Your task to perform on an android device: Open Chrome and go to settings Image 0: 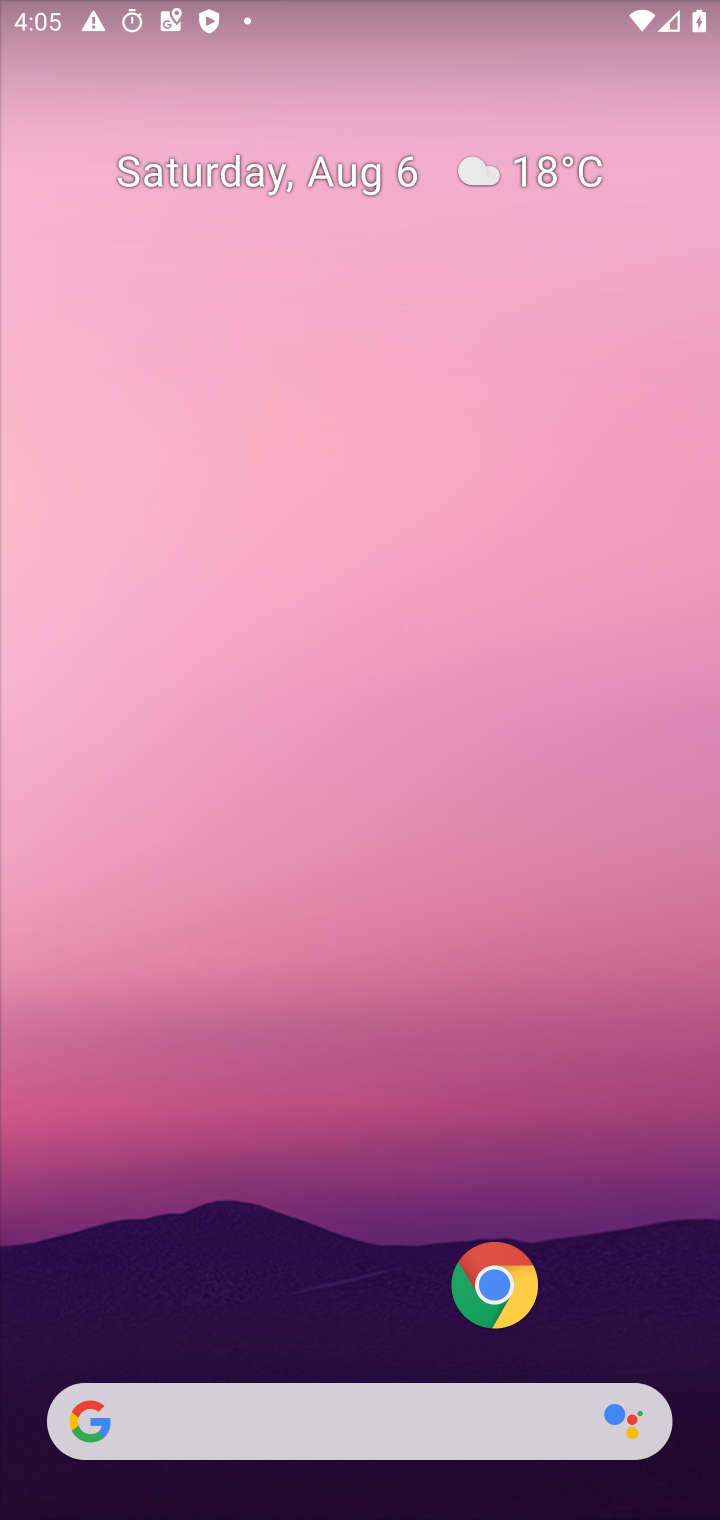
Step 0: click (483, 526)
Your task to perform on an android device: Open Chrome and go to settings Image 1: 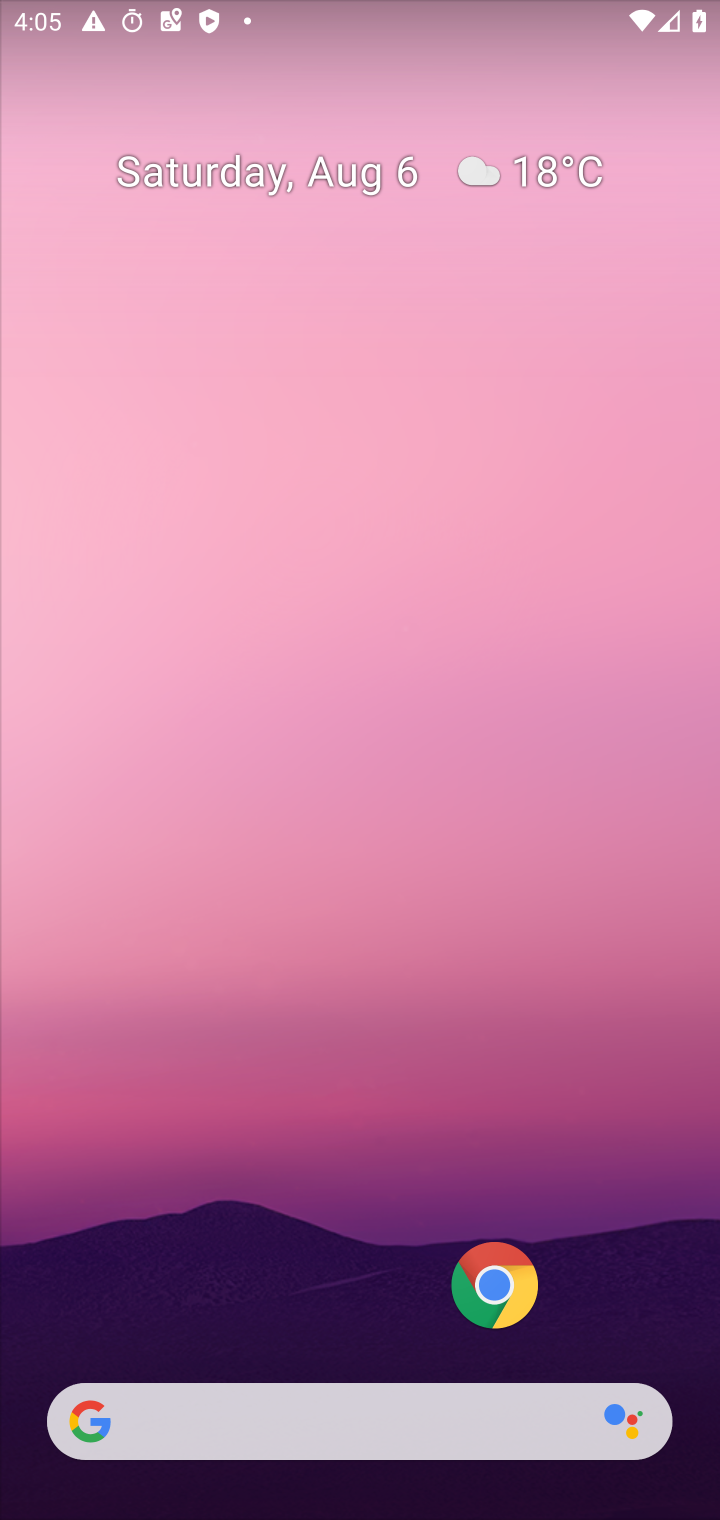
Step 1: press home button
Your task to perform on an android device: Open Chrome and go to settings Image 2: 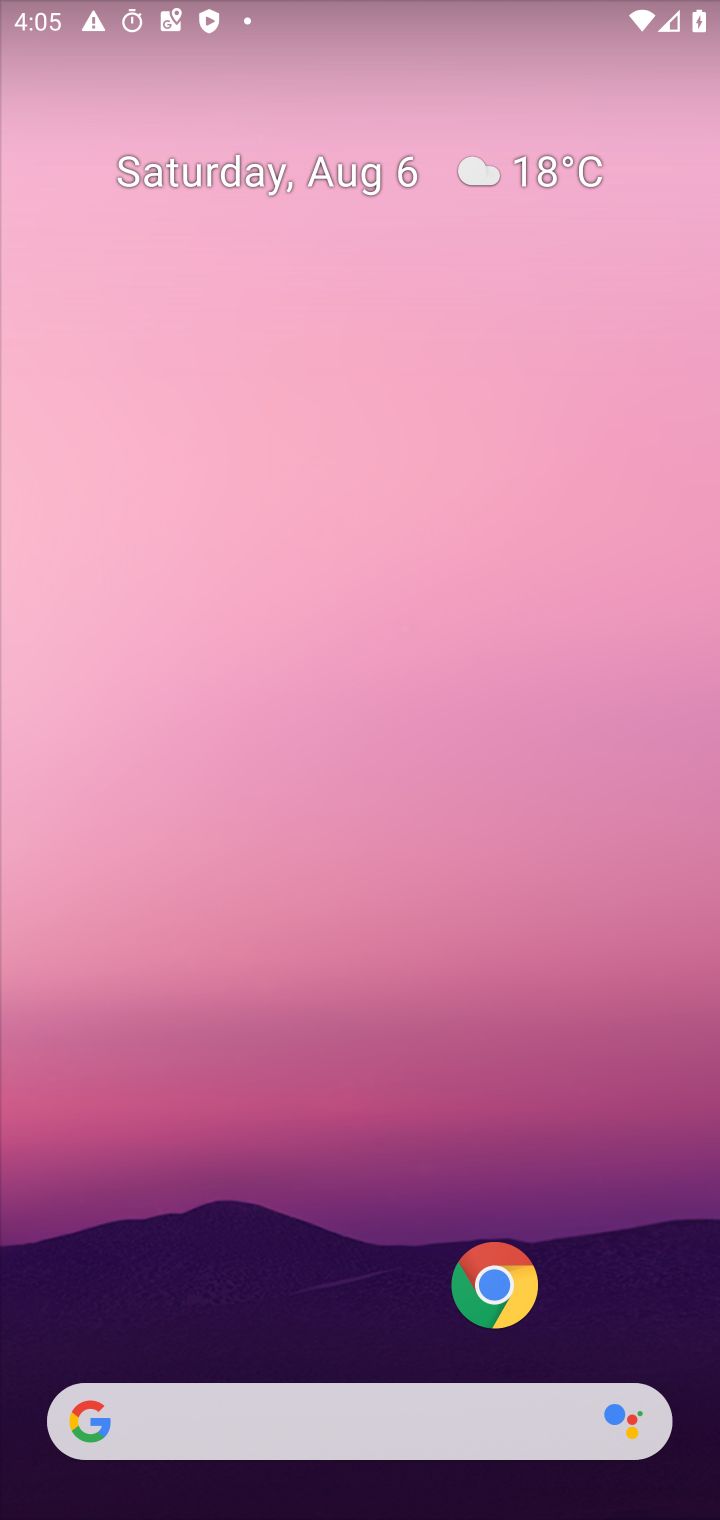
Step 2: drag from (340, 1319) to (344, 387)
Your task to perform on an android device: Open Chrome and go to settings Image 3: 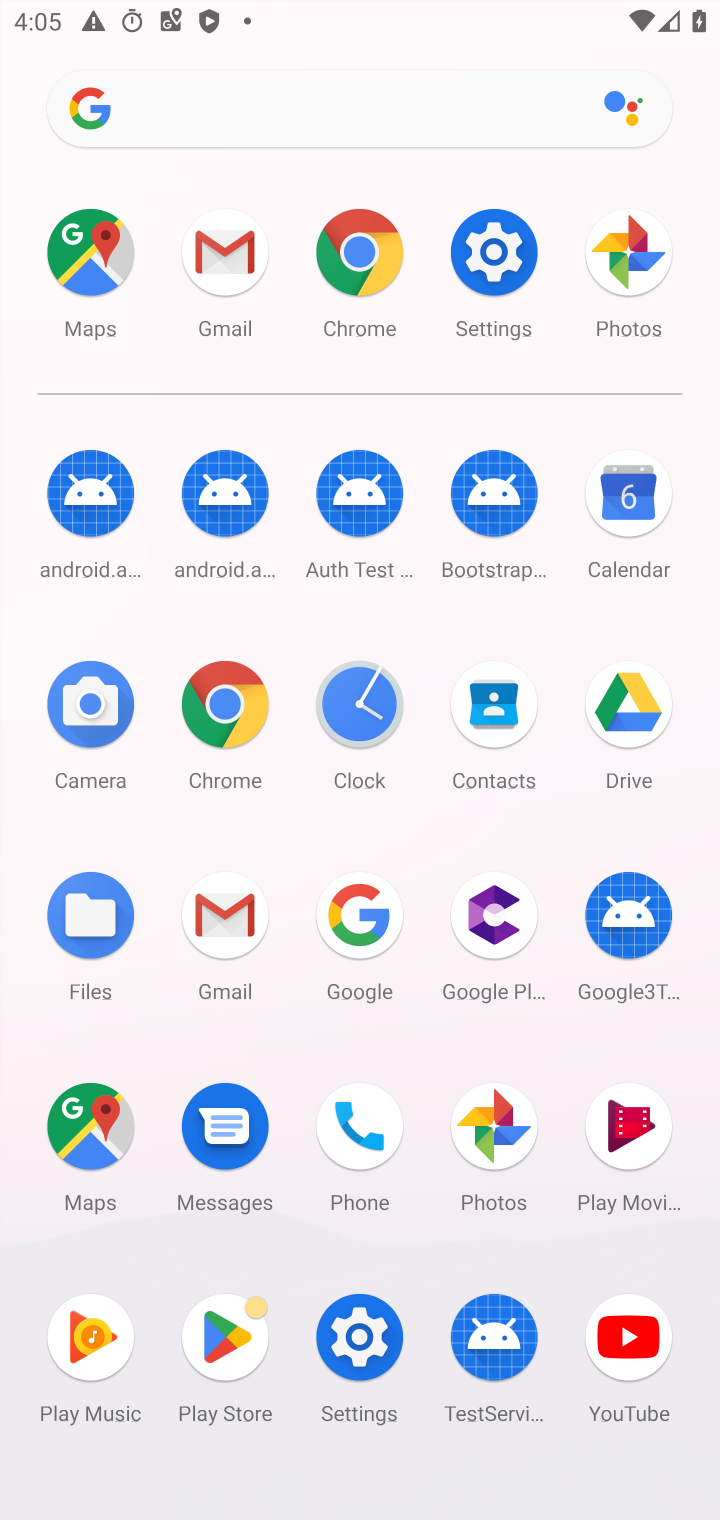
Step 3: click (364, 239)
Your task to perform on an android device: Open Chrome and go to settings Image 4: 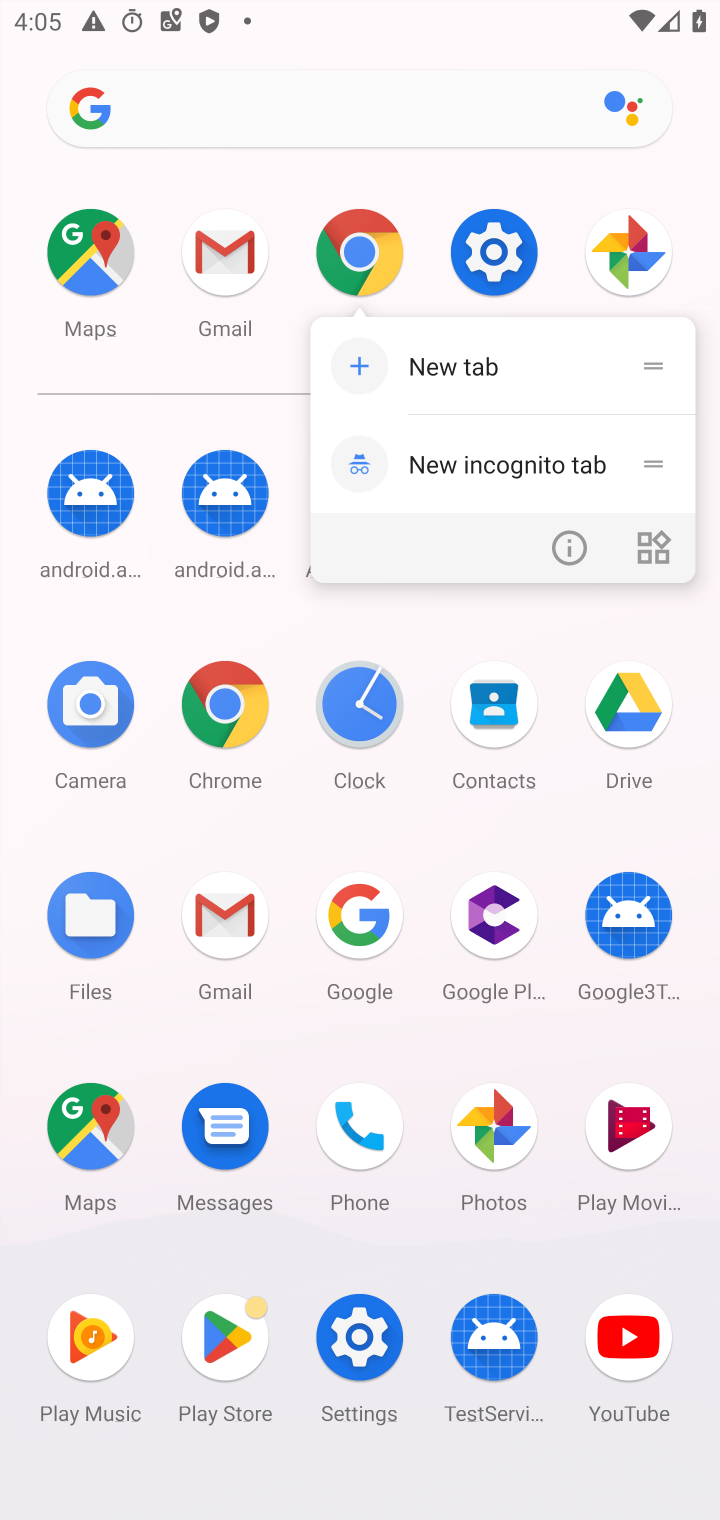
Step 4: click (224, 700)
Your task to perform on an android device: Open Chrome and go to settings Image 5: 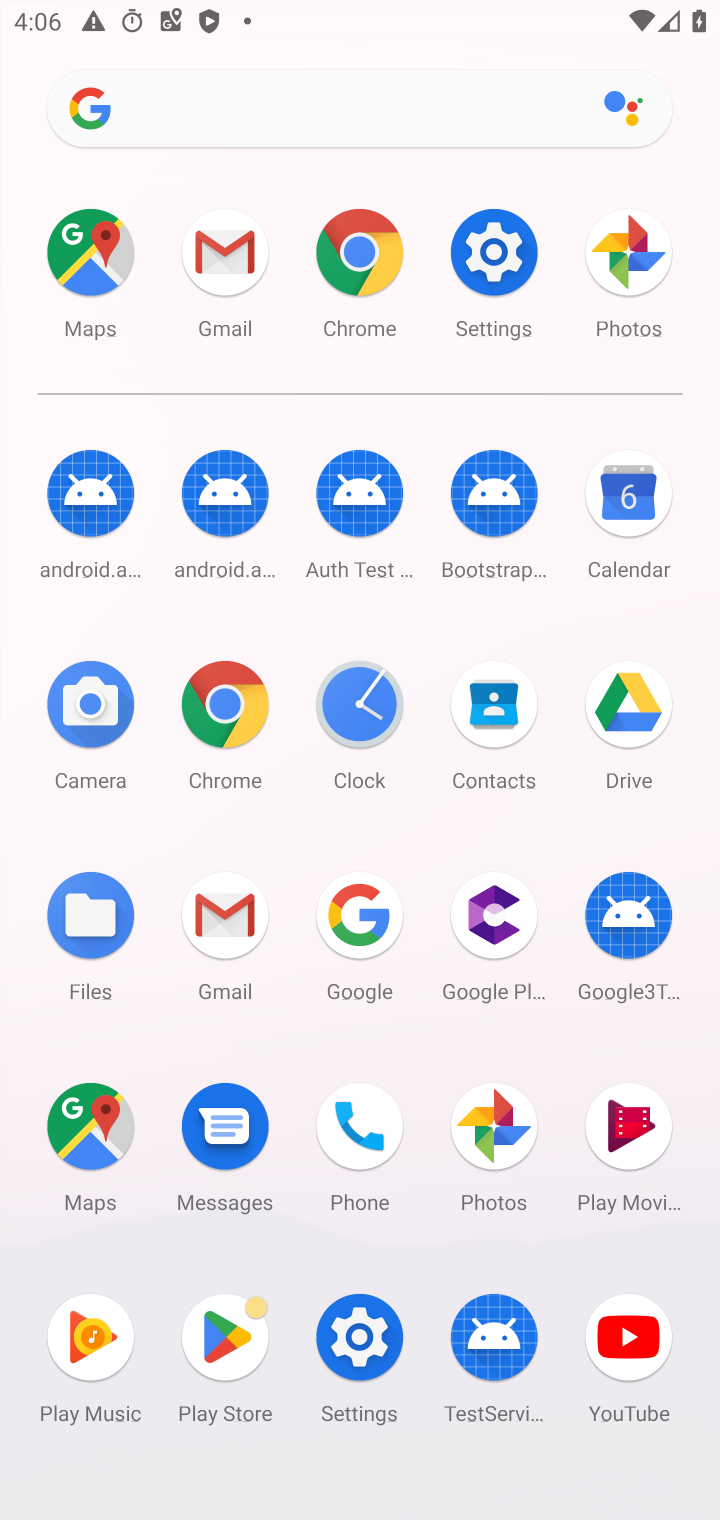
Step 5: click (345, 250)
Your task to perform on an android device: Open Chrome and go to settings Image 6: 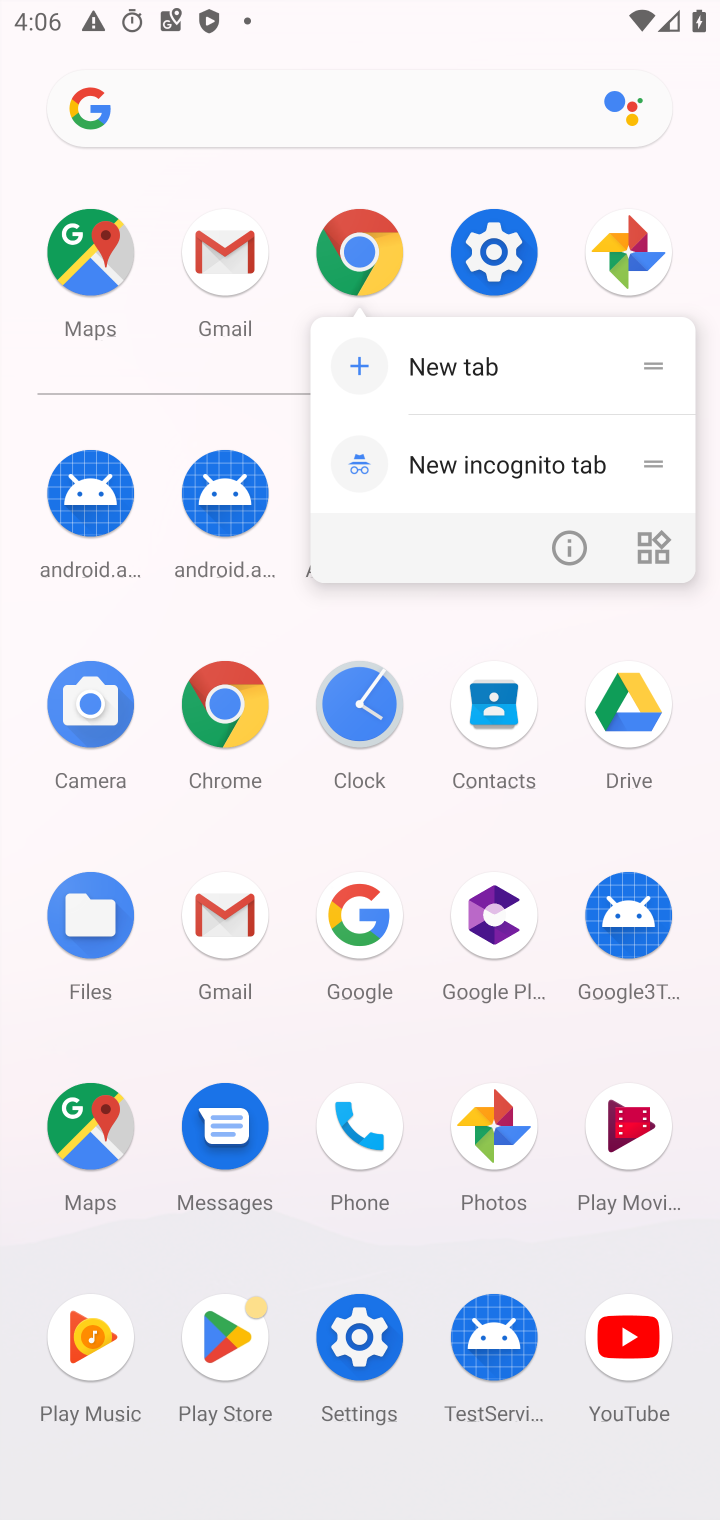
Step 6: click (363, 259)
Your task to perform on an android device: Open Chrome and go to settings Image 7: 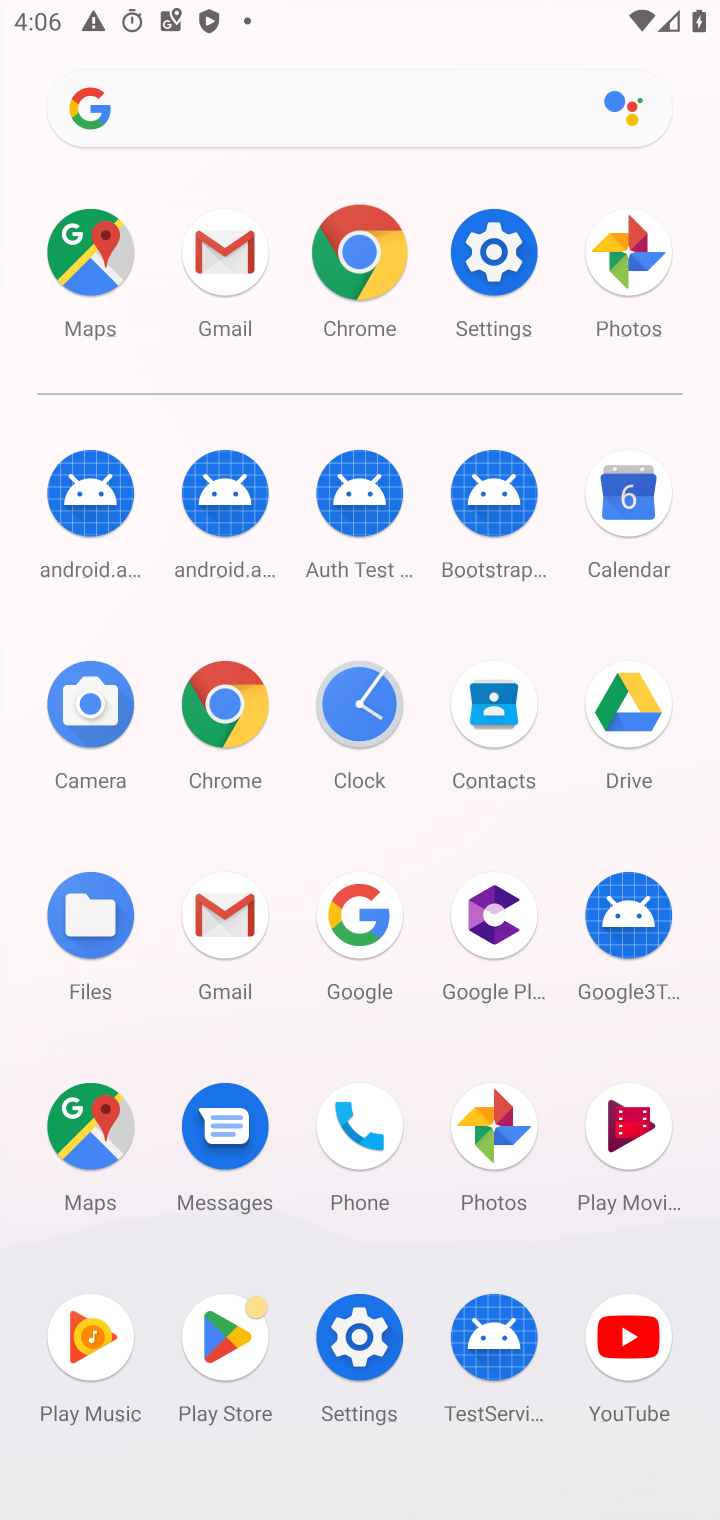
Step 7: click (361, 252)
Your task to perform on an android device: Open Chrome and go to settings Image 8: 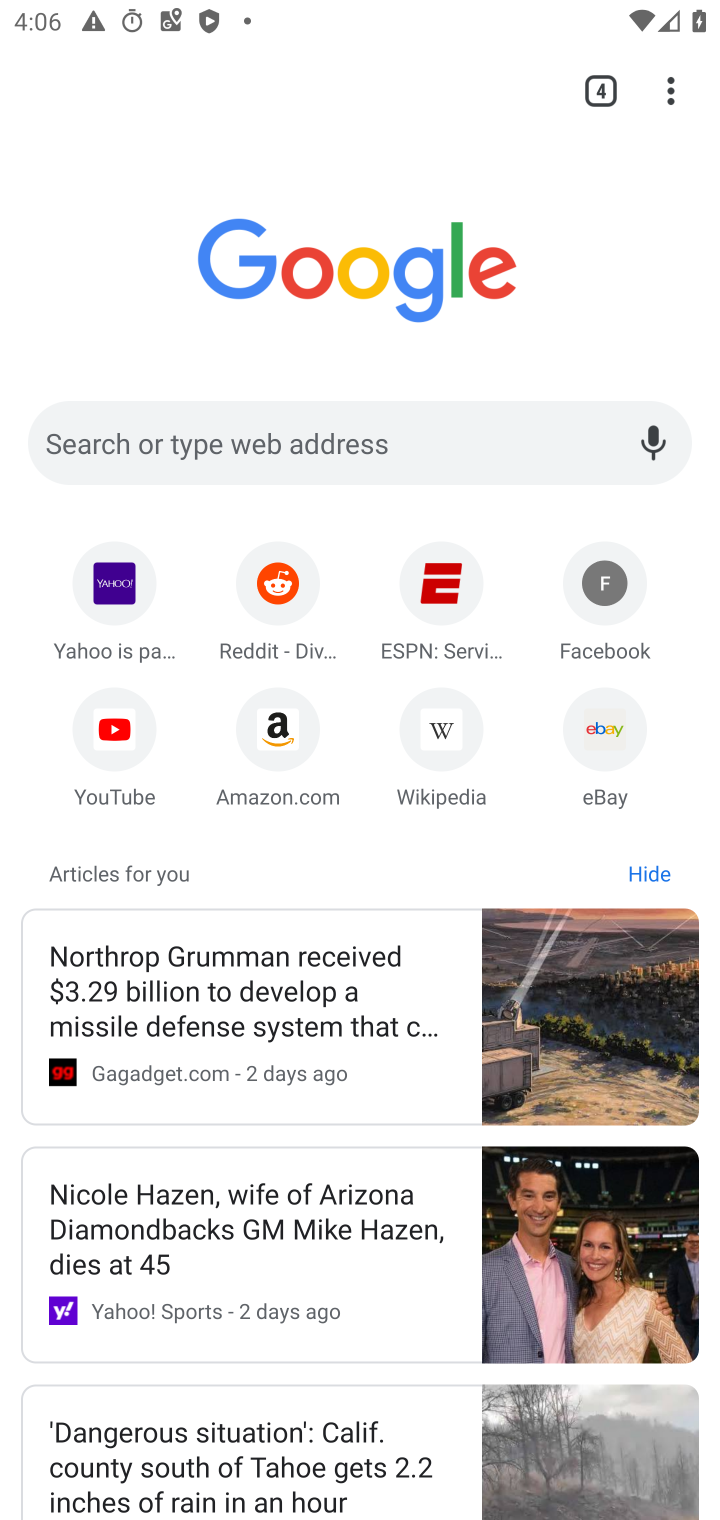
Step 8: click (664, 101)
Your task to perform on an android device: Open Chrome and go to settings Image 9: 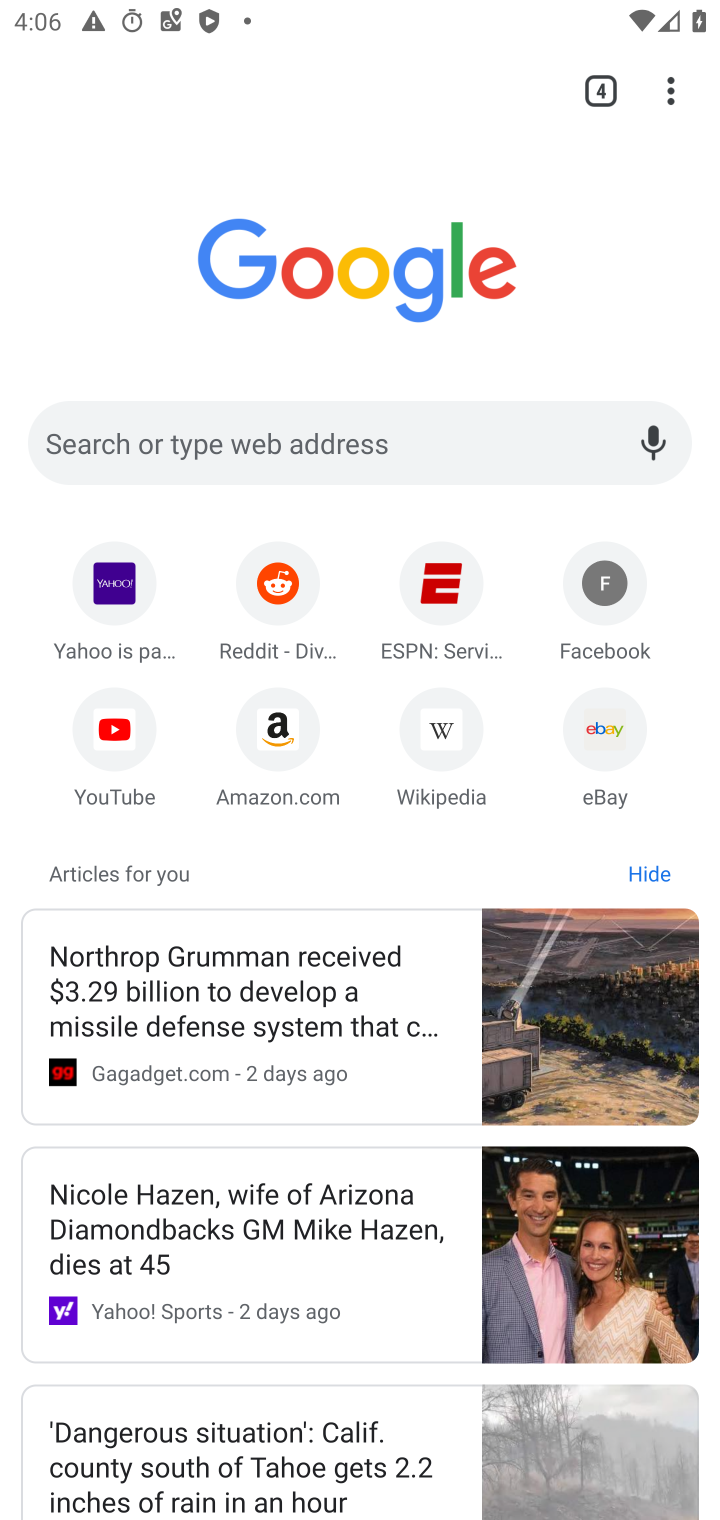
Step 9: click (676, 86)
Your task to perform on an android device: Open Chrome and go to settings Image 10: 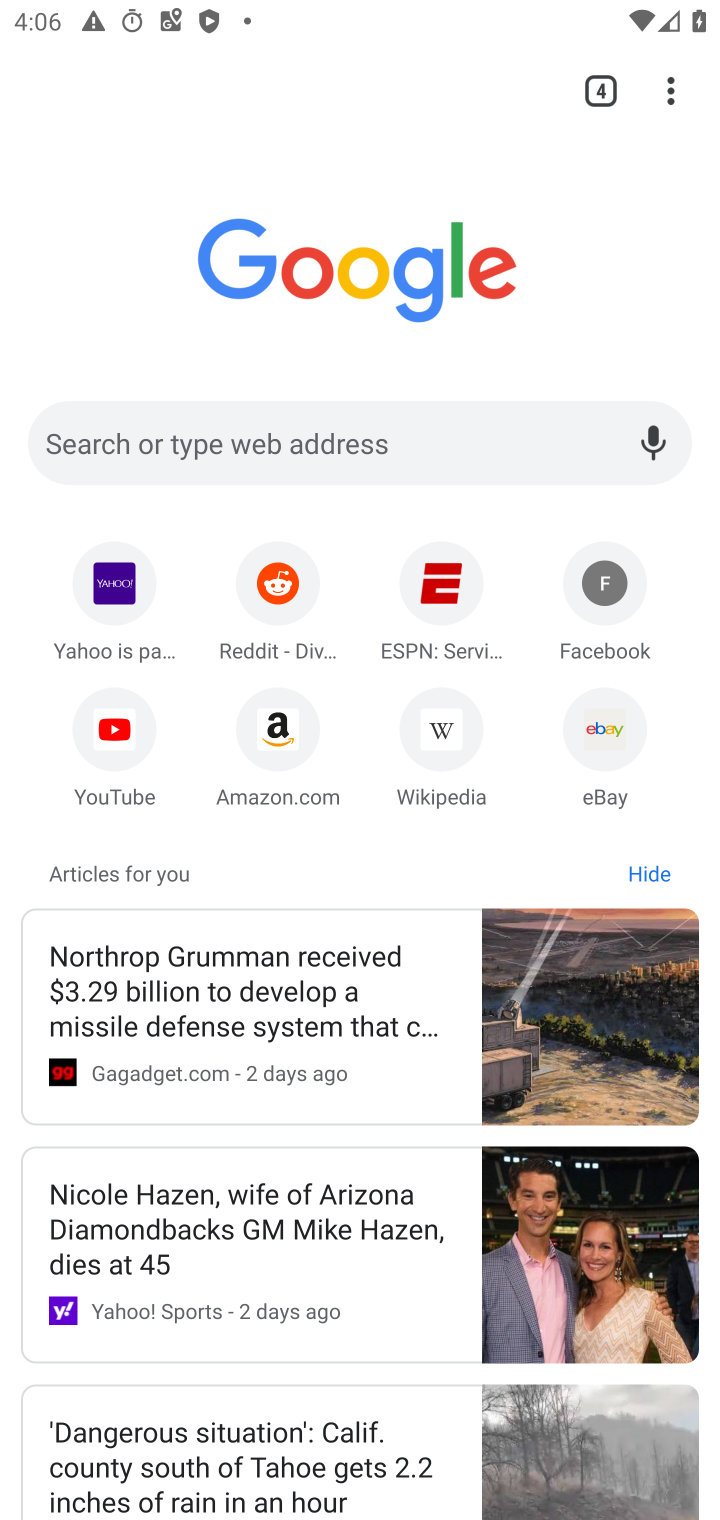
Step 10: click (670, 83)
Your task to perform on an android device: Open Chrome and go to settings Image 11: 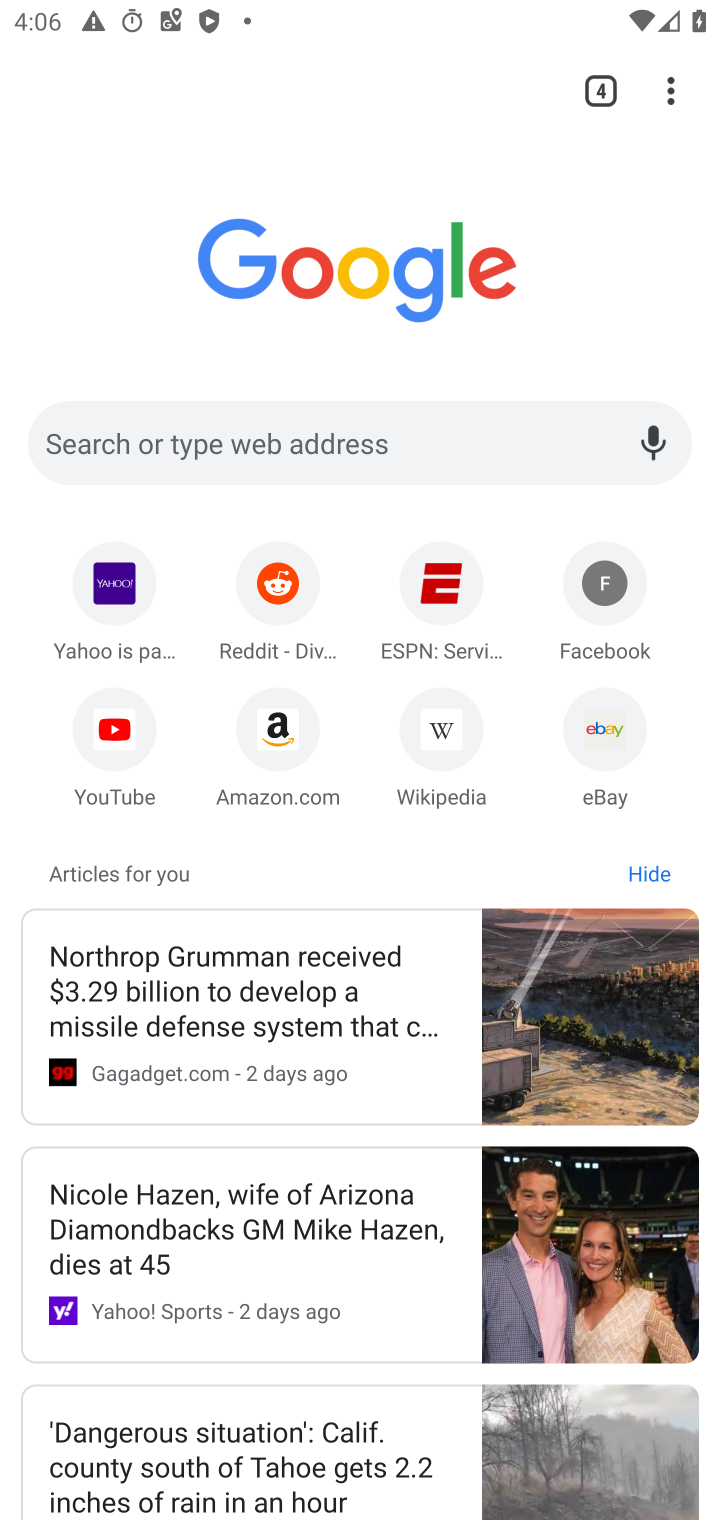
Step 11: click (677, 88)
Your task to perform on an android device: Open Chrome and go to settings Image 12: 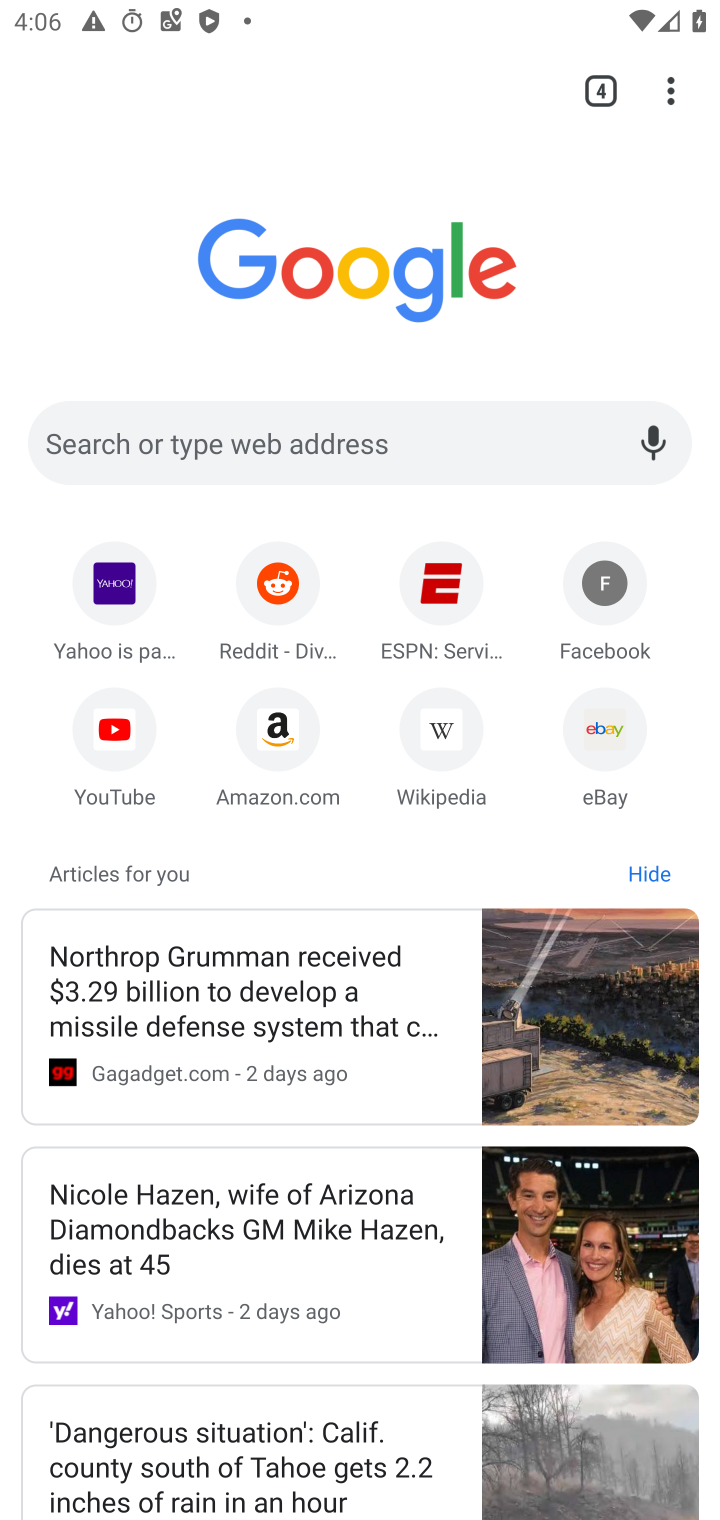
Step 12: click (669, 82)
Your task to perform on an android device: Open Chrome and go to settings Image 13: 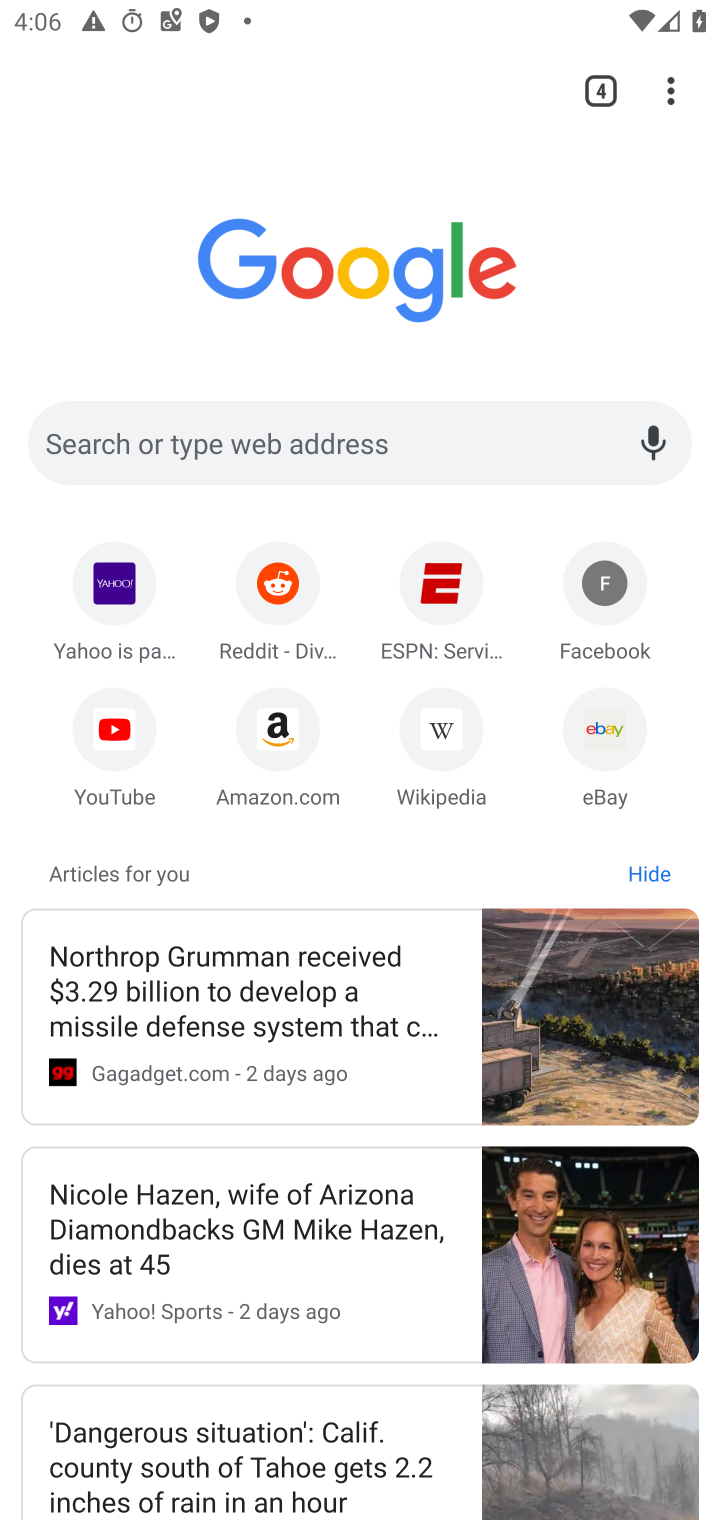
Step 13: click (666, 102)
Your task to perform on an android device: Open Chrome and go to settings Image 14: 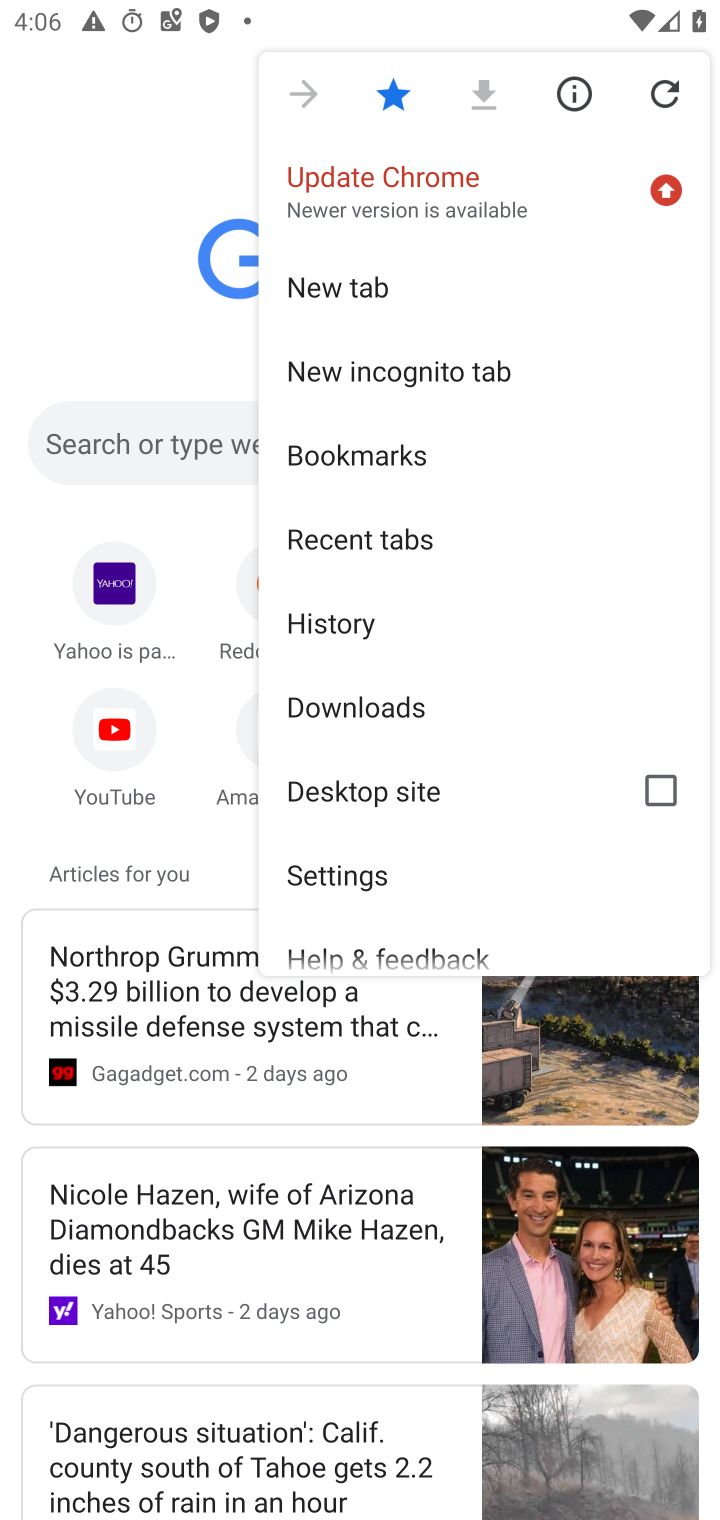
Step 14: click (407, 866)
Your task to perform on an android device: Open Chrome and go to settings Image 15: 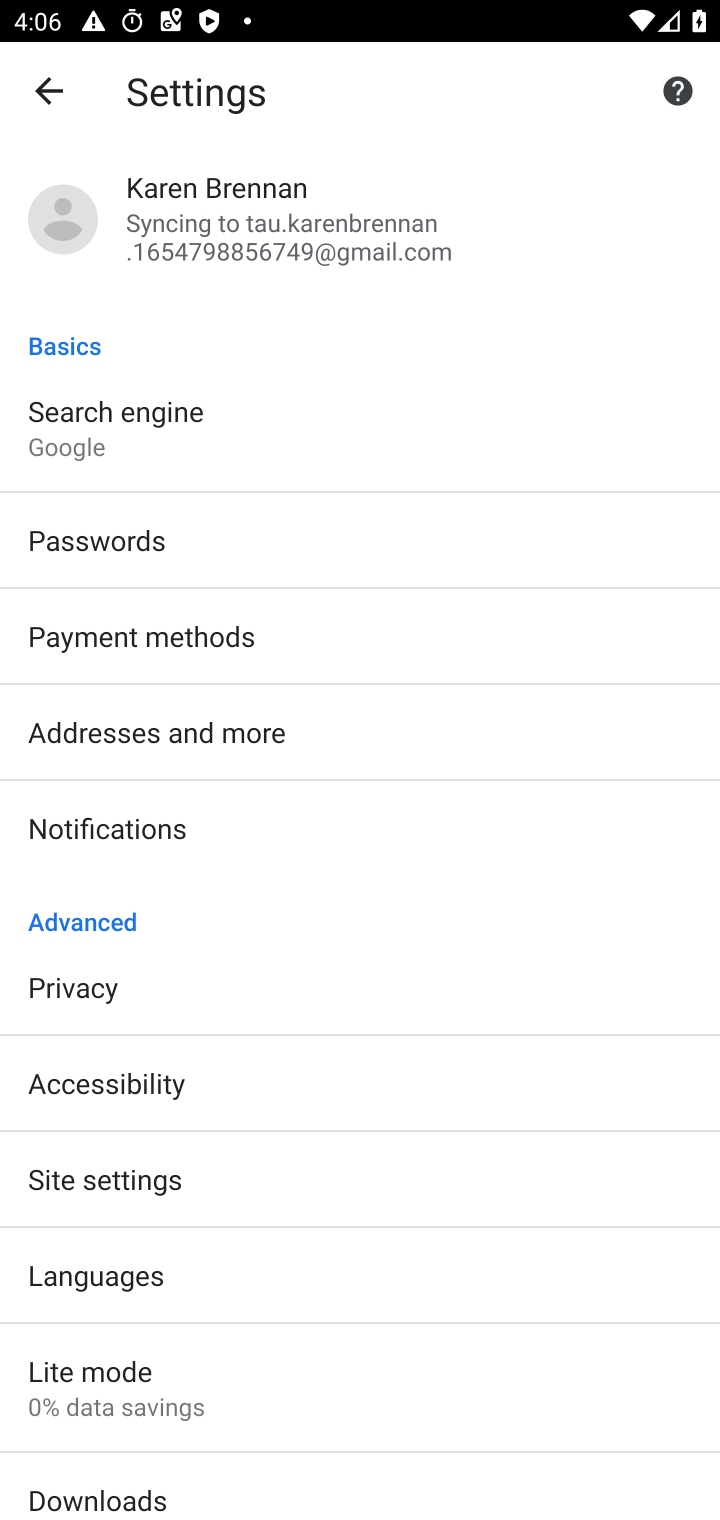
Step 15: task complete